Your task to perform on an android device: Open the stopwatch Image 0: 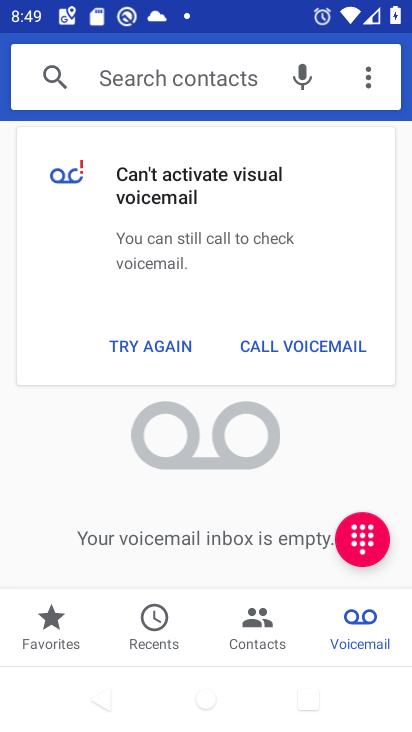
Step 0: press home button
Your task to perform on an android device: Open the stopwatch Image 1: 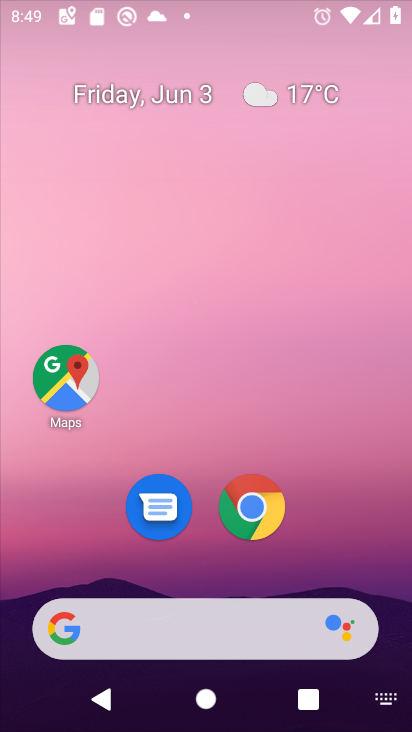
Step 1: drag from (344, 492) to (87, 20)
Your task to perform on an android device: Open the stopwatch Image 2: 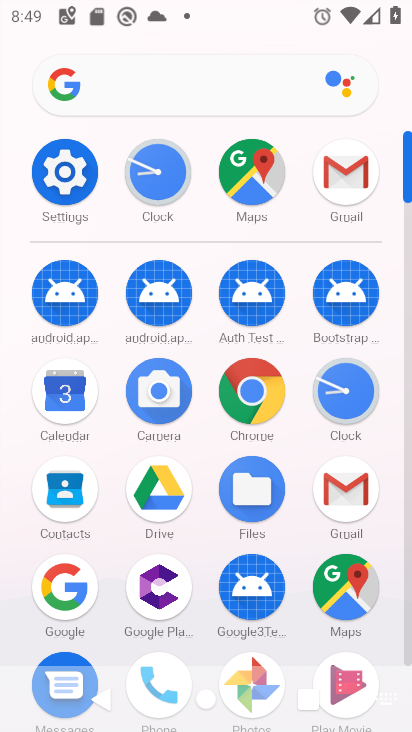
Step 2: click (71, 169)
Your task to perform on an android device: Open the stopwatch Image 3: 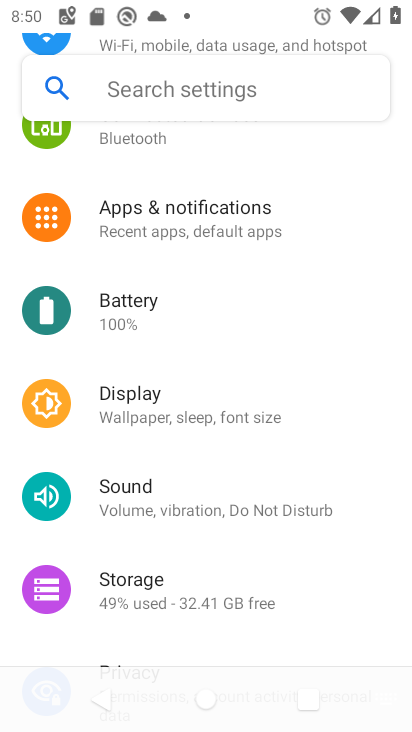
Step 3: drag from (277, 499) to (216, 98)
Your task to perform on an android device: Open the stopwatch Image 4: 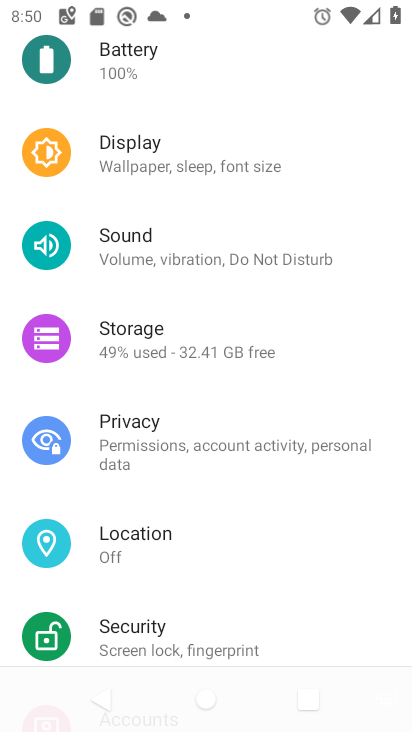
Step 4: press home button
Your task to perform on an android device: Open the stopwatch Image 5: 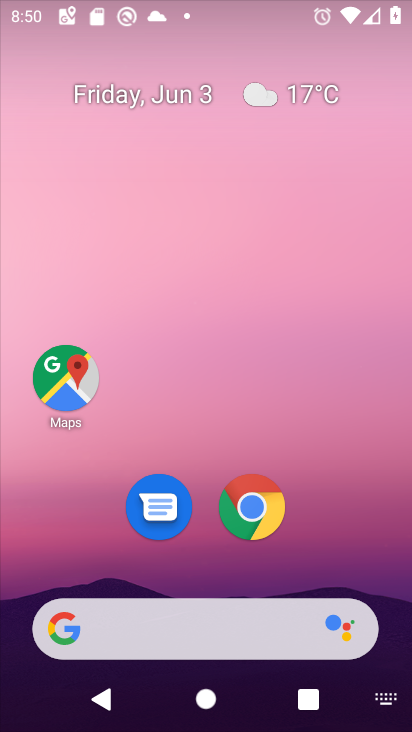
Step 5: drag from (317, 380) to (246, 39)
Your task to perform on an android device: Open the stopwatch Image 6: 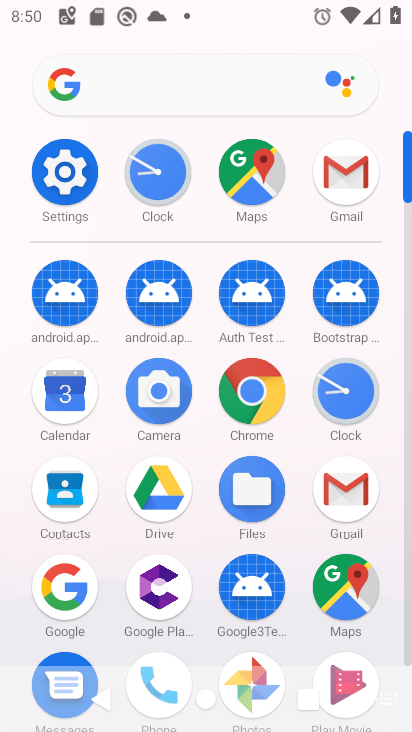
Step 6: click (361, 364)
Your task to perform on an android device: Open the stopwatch Image 7: 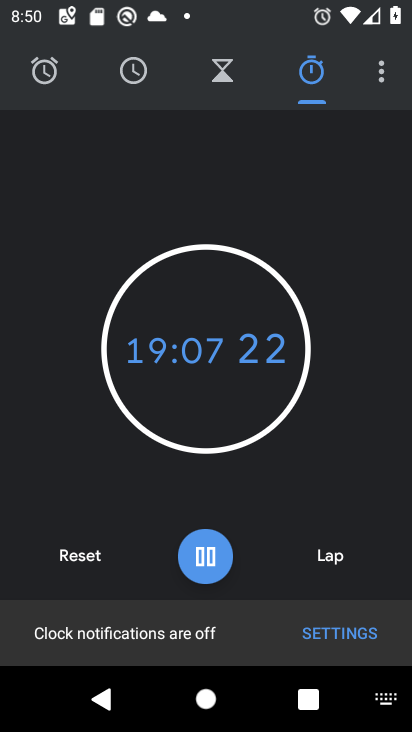
Step 7: click (215, 545)
Your task to perform on an android device: Open the stopwatch Image 8: 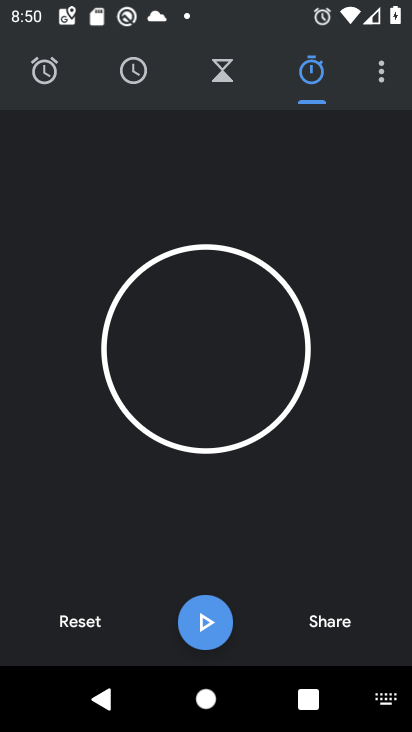
Step 8: task complete